Your task to perform on an android device: Open location settings Image 0: 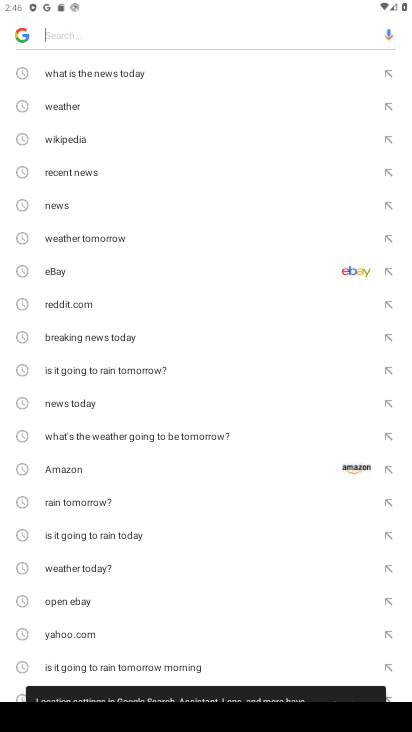
Step 0: press home button
Your task to perform on an android device: Open location settings Image 1: 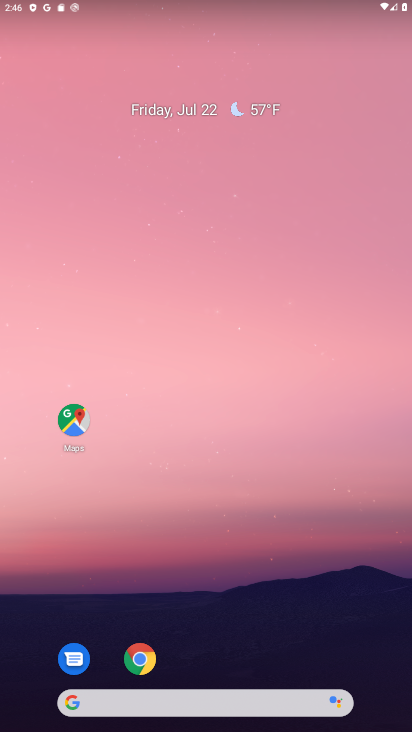
Step 1: drag from (339, 623) to (308, 43)
Your task to perform on an android device: Open location settings Image 2: 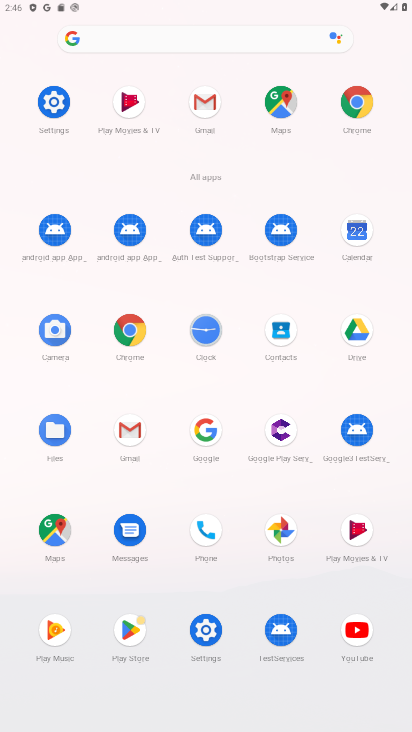
Step 2: click (44, 116)
Your task to perform on an android device: Open location settings Image 3: 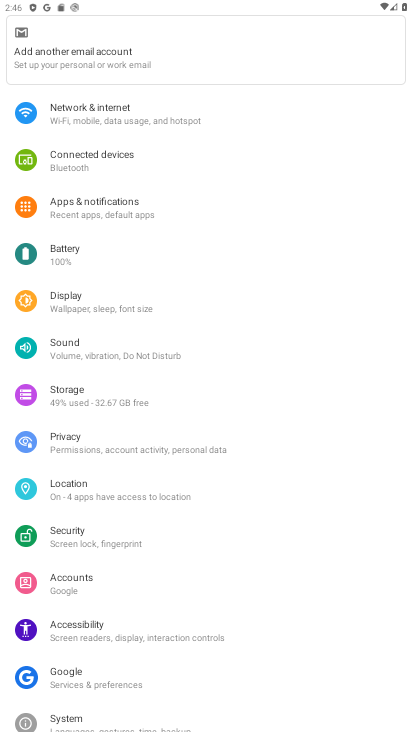
Step 3: click (88, 488)
Your task to perform on an android device: Open location settings Image 4: 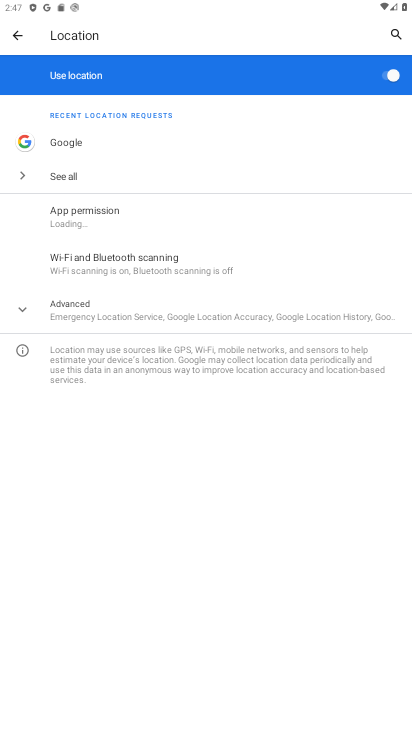
Step 4: task complete